Your task to perform on an android device: change the clock style Image 0: 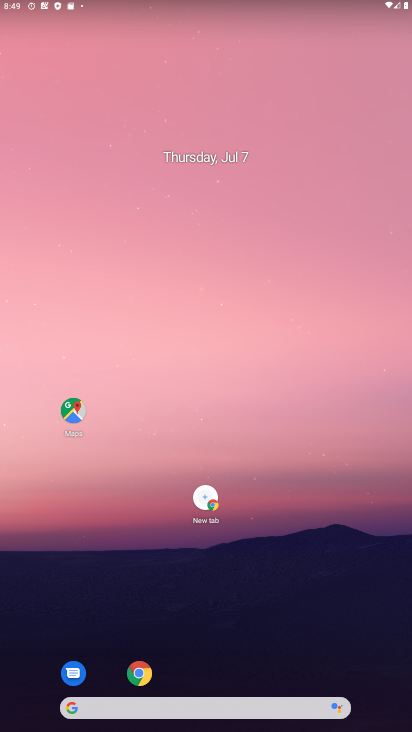
Step 0: press home button
Your task to perform on an android device: change the clock style Image 1: 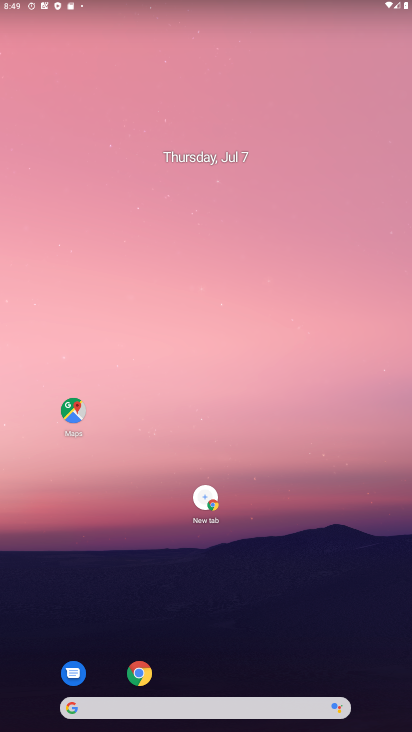
Step 1: drag from (302, 654) to (216, 3)
Your task to perform on an android device: change the clock style Image 2: 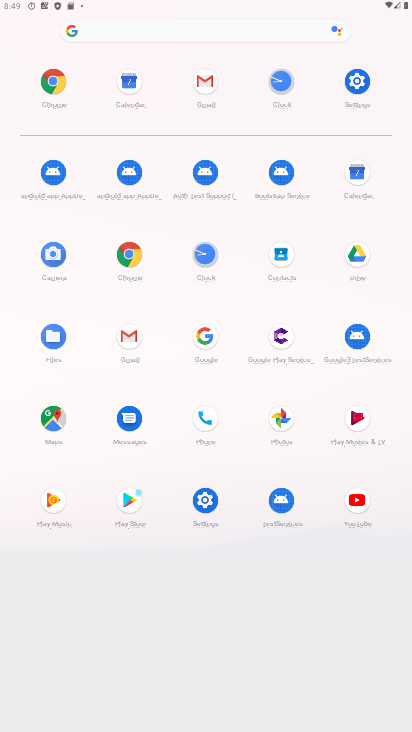
Step 2: click (288, 85)
Your task to perform on an android device: change the clock style Image 3: 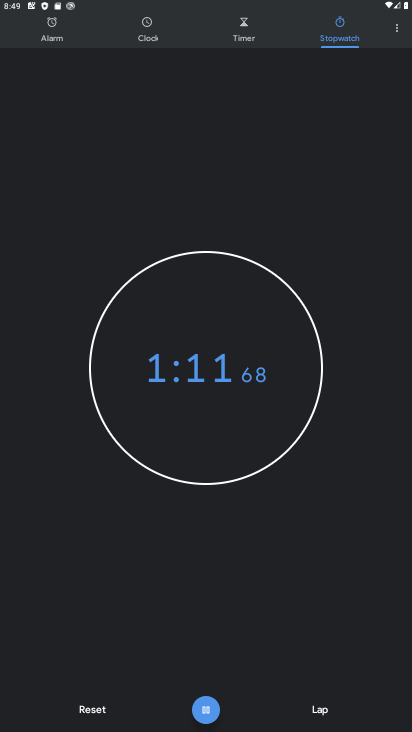
Step 3: click (396, 30)
Your task to perform on an android device: change the clock style Image 4: 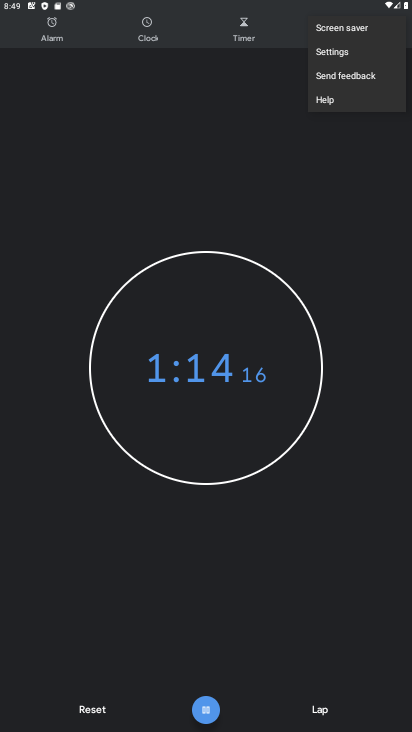
Step 4: click (329, 53)
Your task to perform on an android device: change the clock style Image 5: 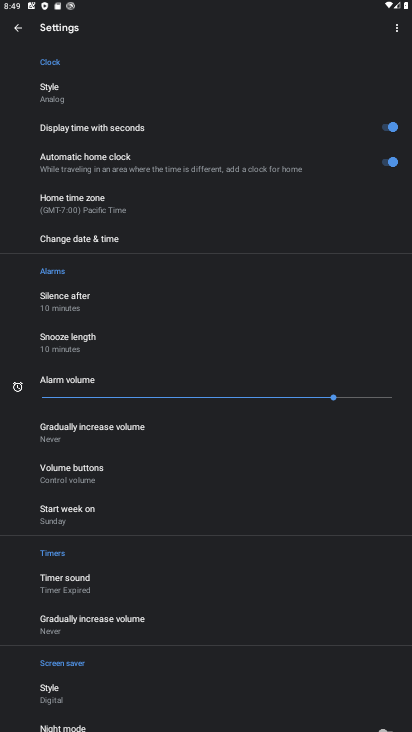
Step 5: click (43, 101)
Your task to perform on an android device: change the clock style Image 6: 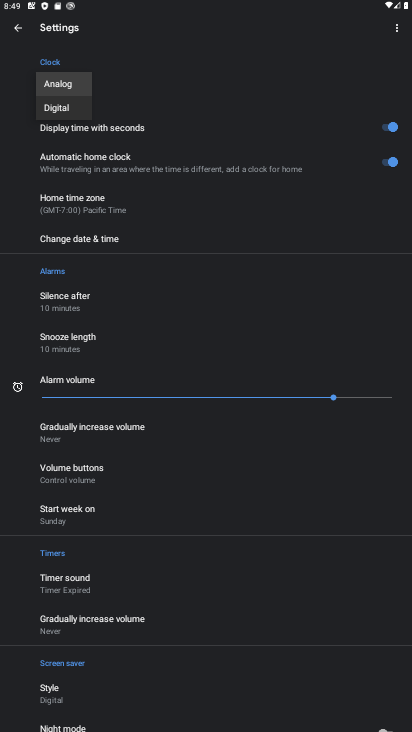
Step 6: click (57, 119)
Your task to perform on an android device: change the clock style Image 7: 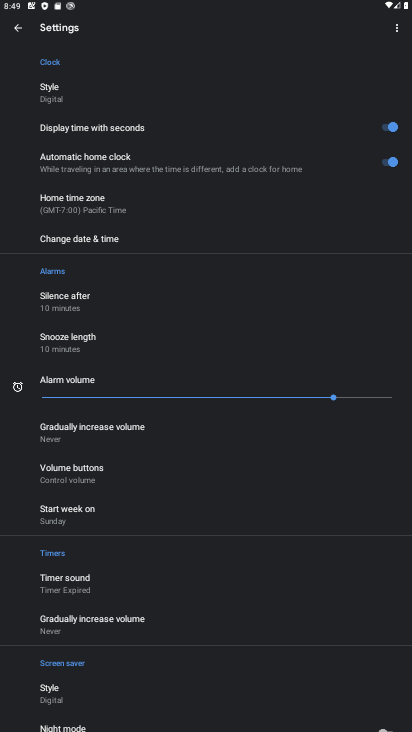
Step 7: task complete